Your task to perform on an android device: Go to wifi settings Image 0: 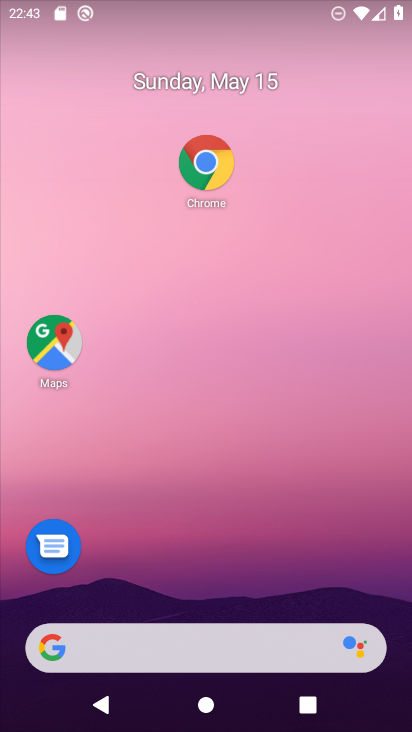
Step 0: drag from (253, 605) to (287, 172)
Your task to perform on an android device: Go to wifi settings Image 1: 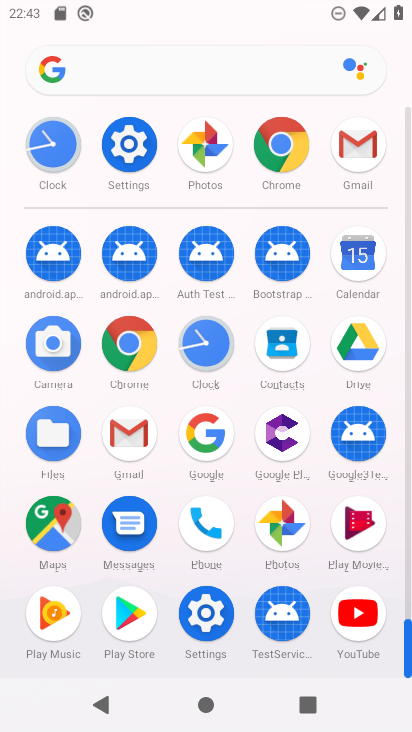
Step 1: click (123, 127)
Your task to perform on an android device: Go to wifi settings Image 2: 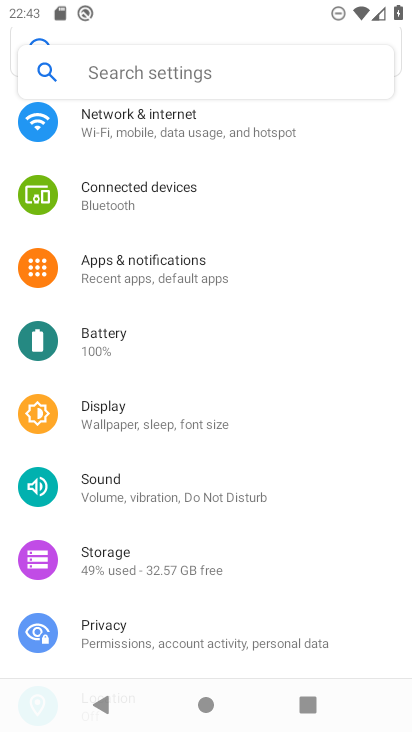
Step 2: drag from (197, 273) to (174, 631)
Your task to perform on an android device: Go to wifi settings Image 3: 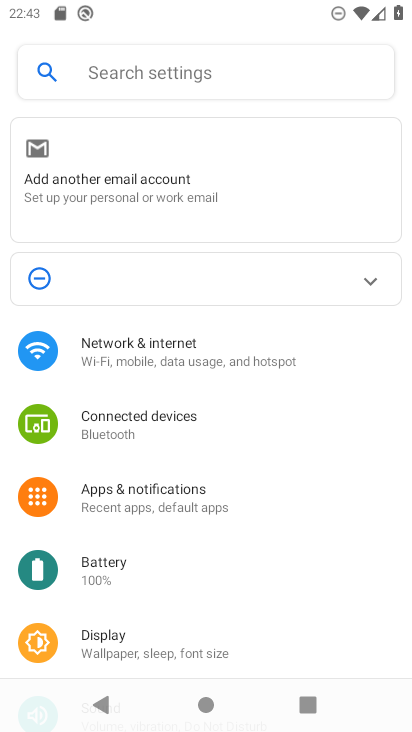
Step 3: click (138, 357)
Your task to perform on an android device: Go to wifi settings Image 4: 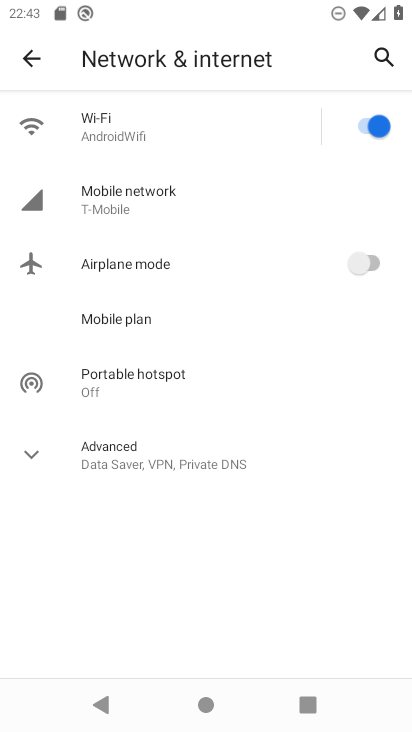
Step 4: click (145, 139)
Your task to perform on an android device: Go to wifi settings Image 5: 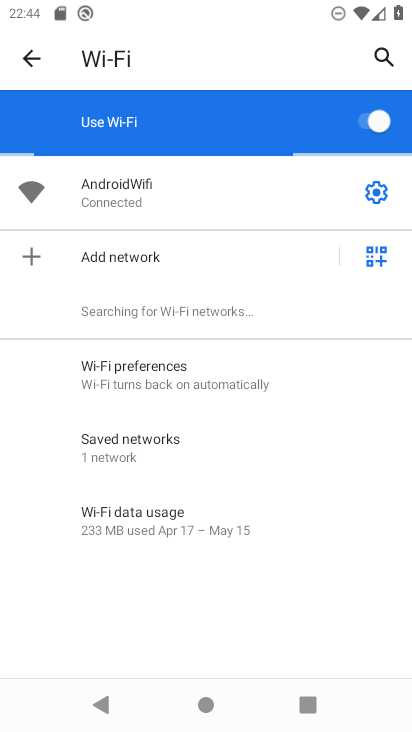
Step 5: task complete